Your task to perform on an android device: turn off notifications settings in the gmail app Image 0: 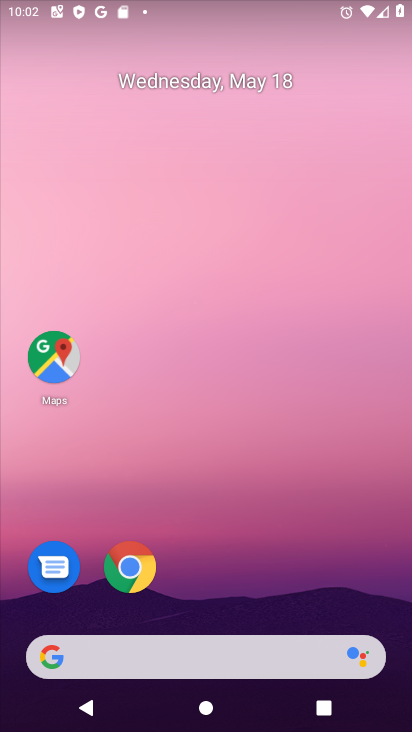
Step 0: drag from (188, 651) to (182, 53)
Your task to perform on an android device: turn off notifications settings in the gmail app Image 1: 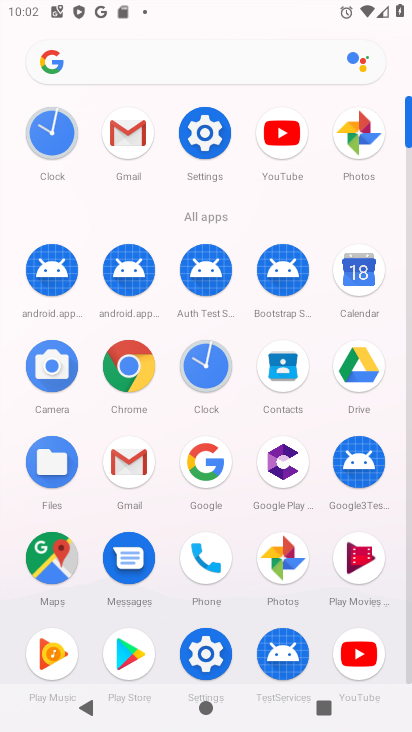
Step 1: click (125, 459)
Your task to perform on an android device: turn off notifications settings in the gmail app Image 2: 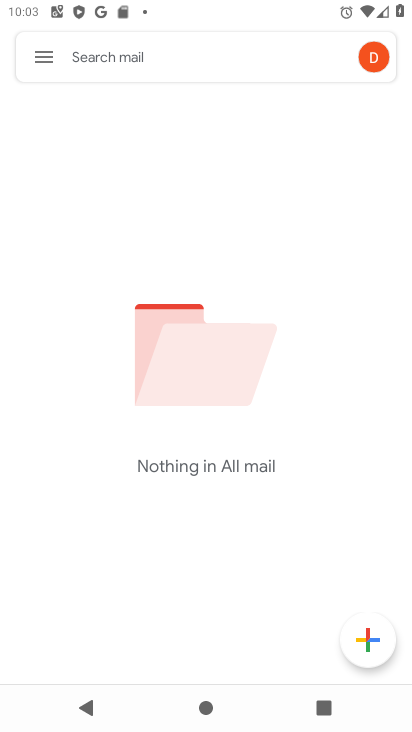
Step 2: click (45, 59)
Your task to perform on an android device: turn off notifications settings in the gmail app Image 3: 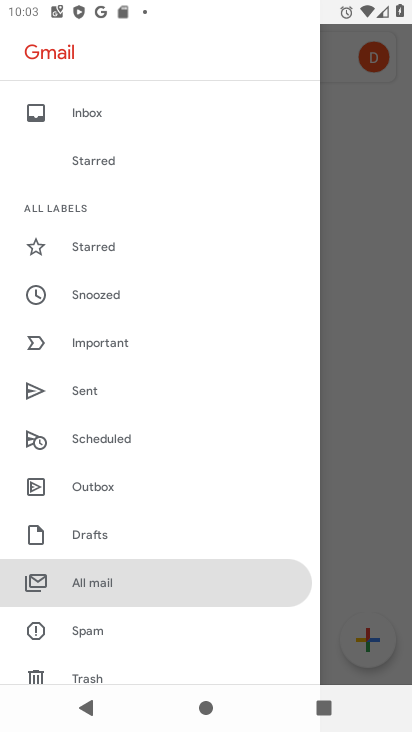
Step 3: drag from (136, 627) to (111, 103)
Your task to perform on an android device: turn off notifications settings in the gmail app Image 4: 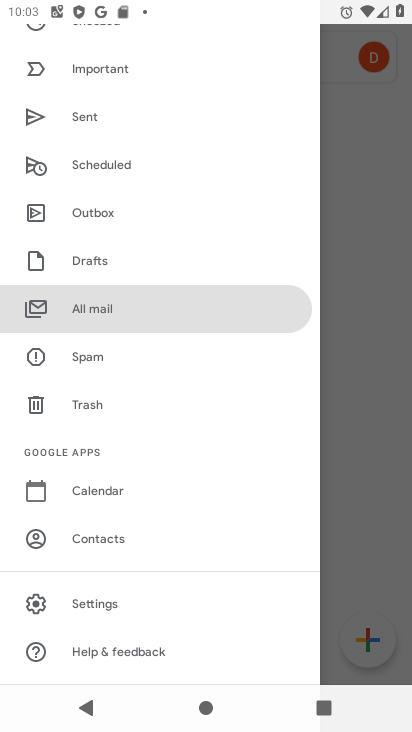
Step 4: click (93, 596)
Your task to perform on an android device: turn off notifications settings in the gmail app Image 5: 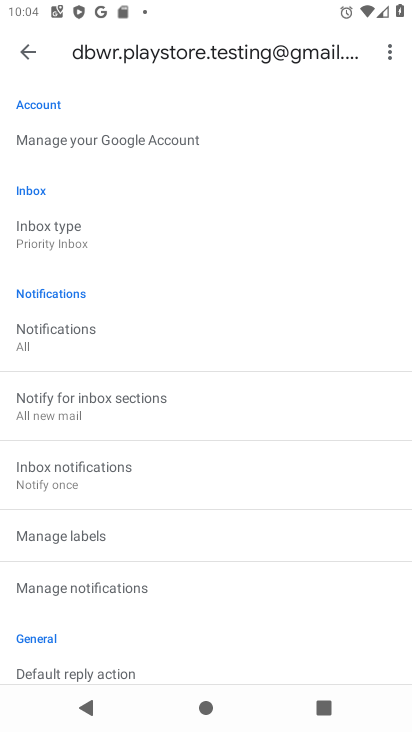
Step 5: click (81, 586)
Your task to perform on an android device: turn off notifications settings in the gmail app Image 6: 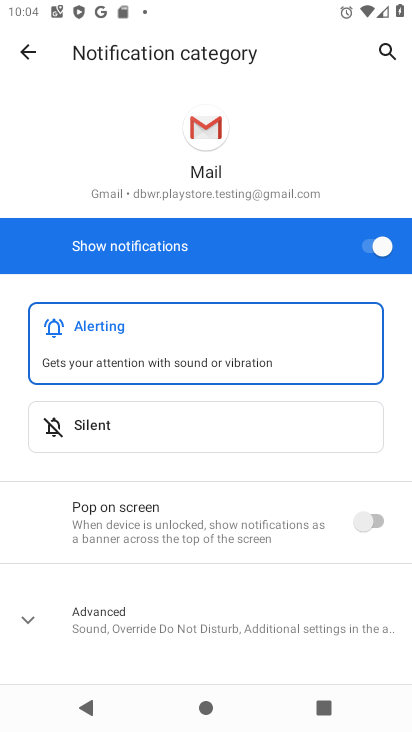
Step 6: click (384, 243)
Your task to perform on an android device: turn off notifications settings in the gmail app Image 7: 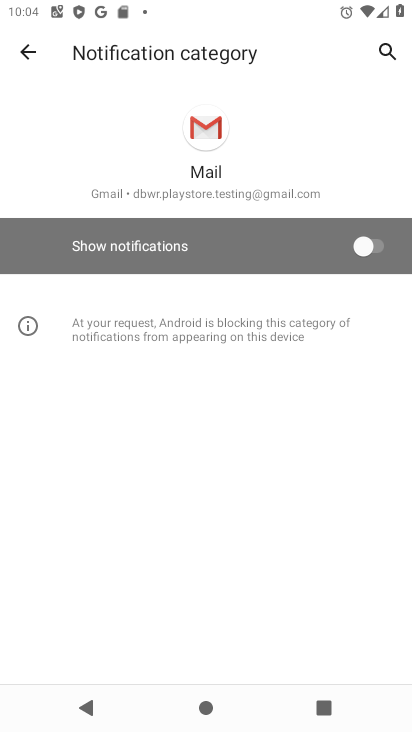
Step 7: task complete